Your task to perform on an android device: What's the weather today? Image 0: 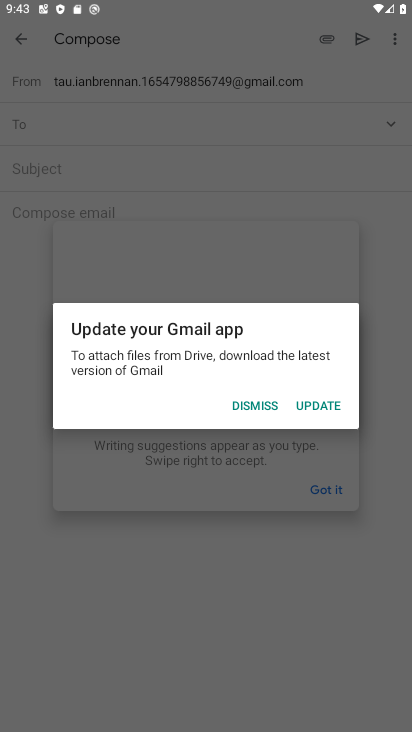
Step 0: click (253, 408)
Your task to perform on an android device: What's the weather today? Image 1: 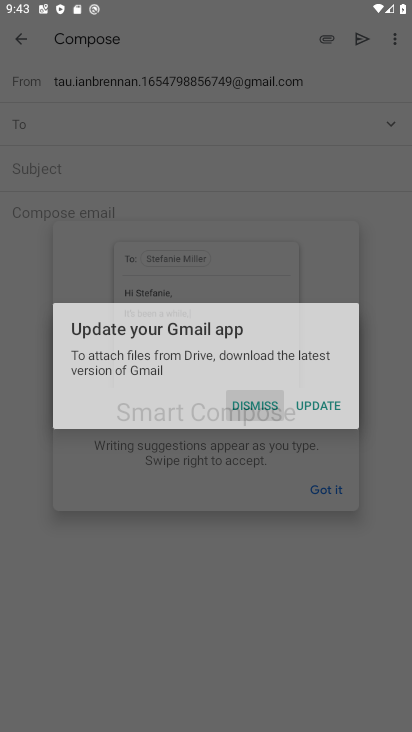
Step 1: click (263, 406)
Your task to perform on an android device: What's the weather today? Image 2: 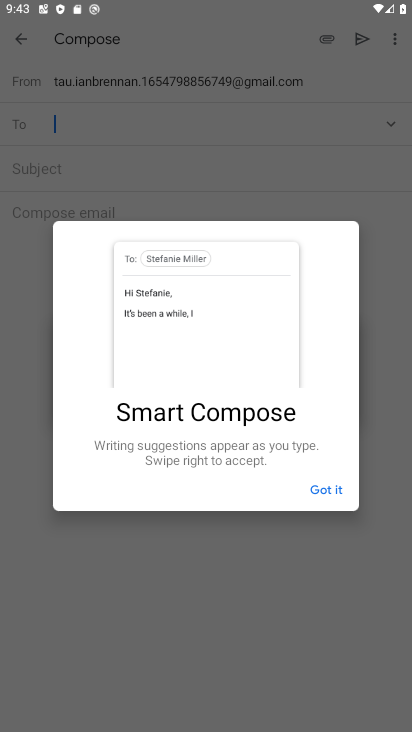
Step 2: click (263, 406)
Your task to perform on an android device: What's the weather today? Image 3: 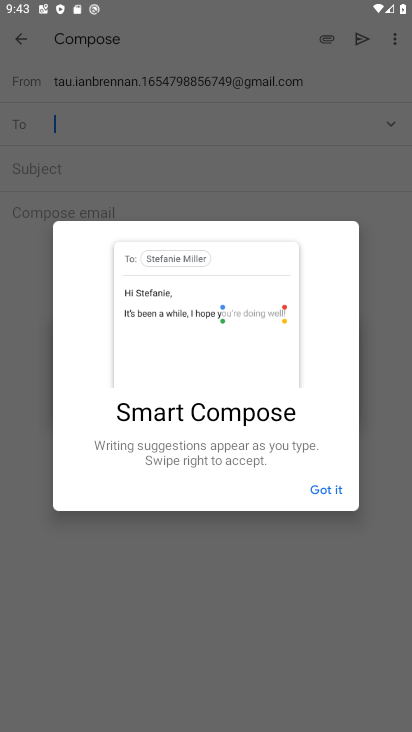
Step 3: click (328, 491)
Your task to perform on an android device: What's the weather today? Image 4: 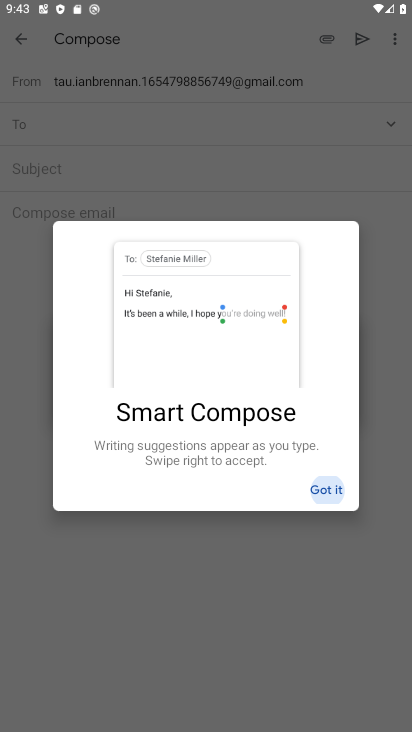
Step 4: click (327, 491)
Your task to perform on an android device: What's the weather today? Image 5: 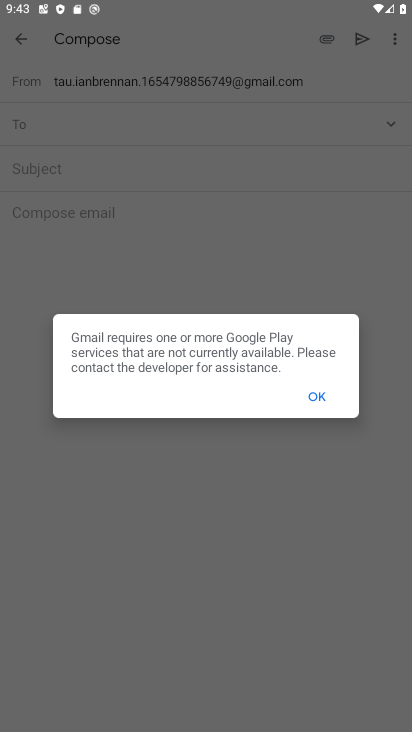
Step 5: click (327, 491)
Your task to perform on an android device: What's the weather today? Image 6: 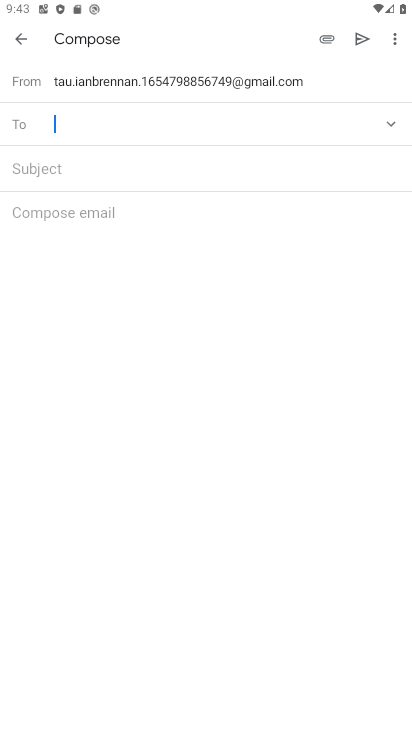
Step 6: click (331, 483)
Your task to perform on an android device: What's the weather today? Image 7: 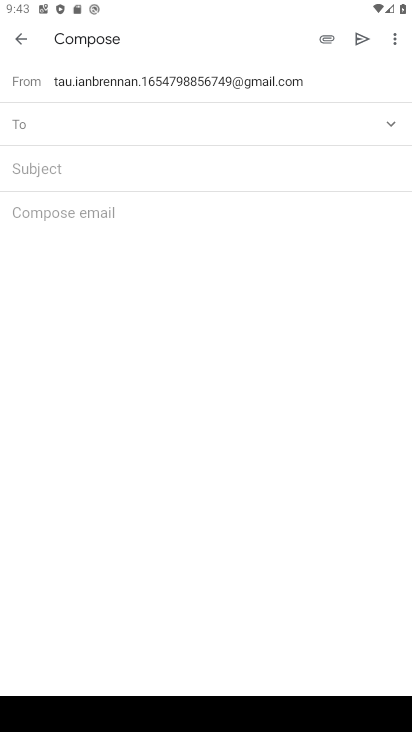
Step 7: click (17, 38)
Your task to perform on an android device: What's the weather today? Image 8: 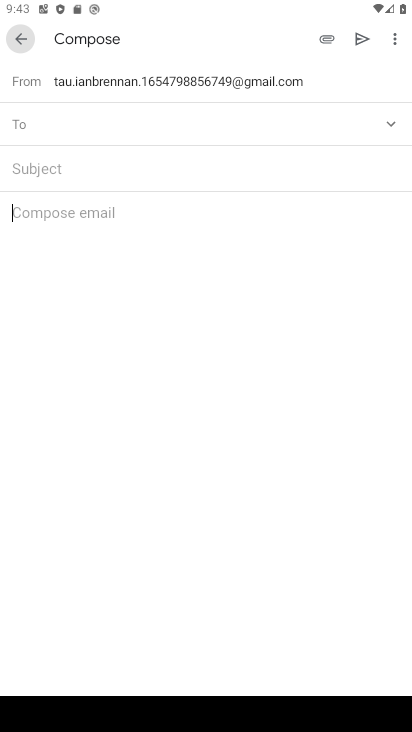
Step 8: click (16, 37)
Your task to perform on an android device: What's the weather today? Image 9: 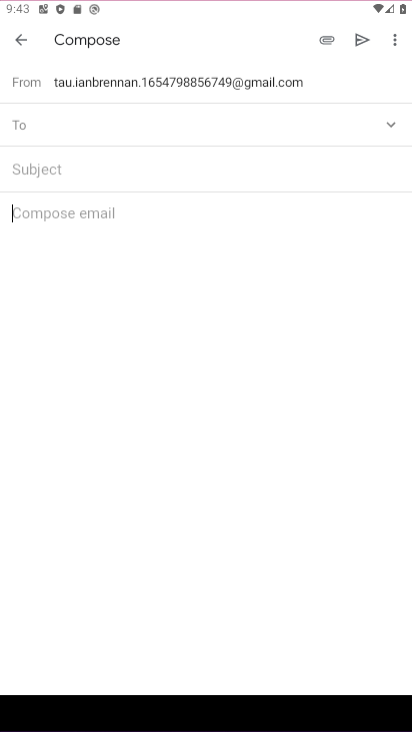
Step 9: click (16, 37)
Your task to perform on an android device: What's the weather today? Image 10: 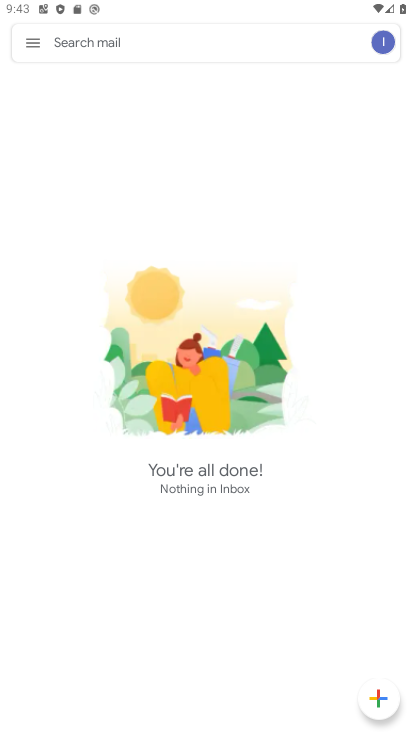
Step 10: press back button
Your task to perform on an android device: What's the weather today? Image 11: 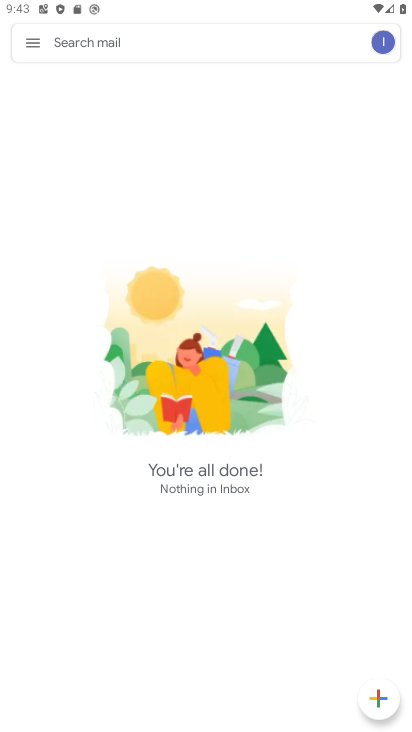
Step 11: press home button
Your task to perform on an android device: What's the weather today? Image 12: 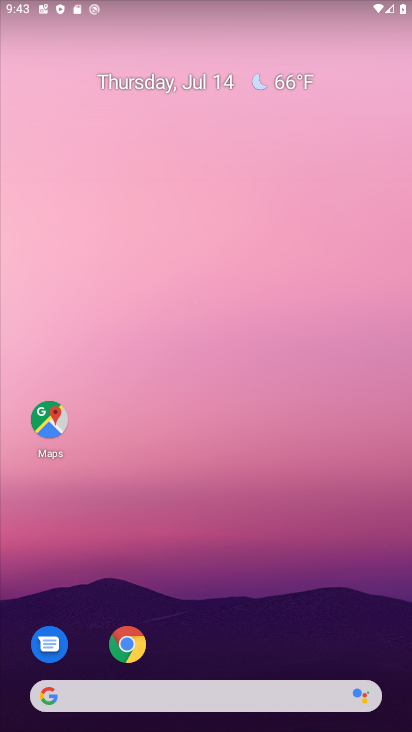
Step 12: drag from (274, 542) to (230, 76)
Your task to perform on an android device: What's the weather today? Image 13: 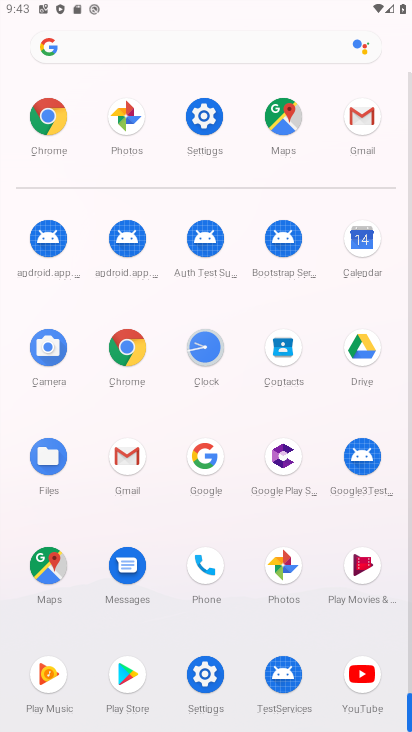
Step 13: click (43, 119)
Your task to perform on an android device: What's the weather today? Image 14: 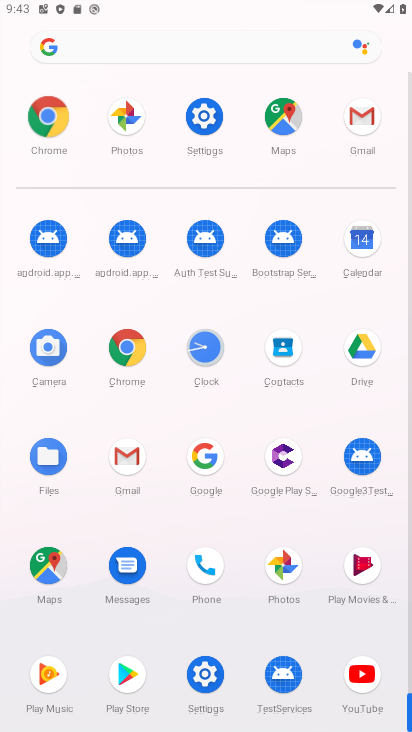
Step 14: click (44, 110)
Your task to perform on an android device: What's the weather today? Image 15: 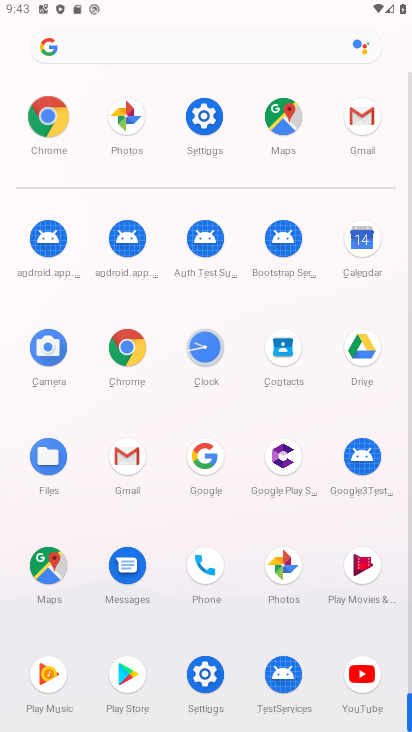
Step 15: click (46, 117)
Your task to perform on an android device: What's the weather today? Image 16: 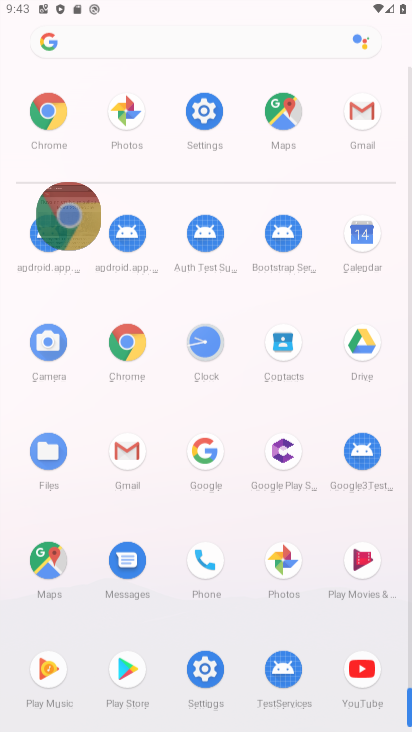
Step 16: click (51, 117)
Your task to perform on an android device: What's the weather today? Image 17: 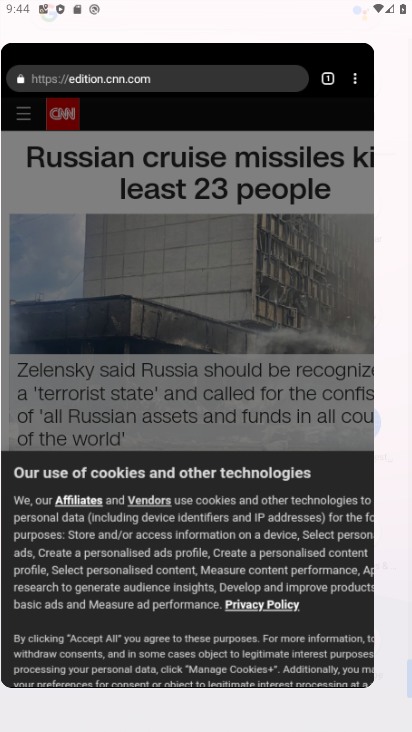
Step 17: click (52, 118)
Your task to perform on an android device: What's the weather today? Image 18: 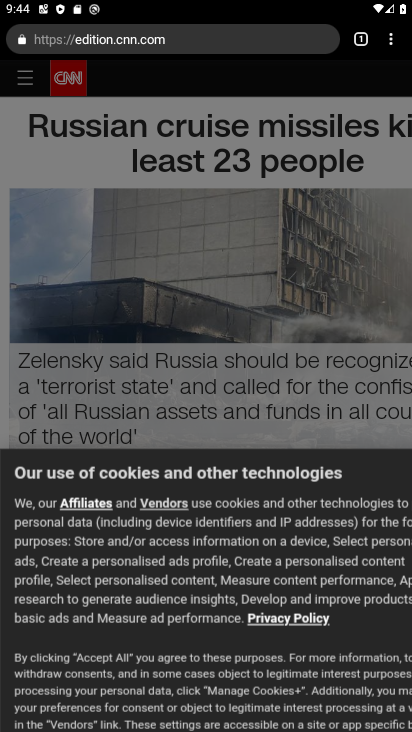
Step 18: drag from (390, 46) to (252, 78)
Your task to perform on an android device: What's the weather today? Image 19: 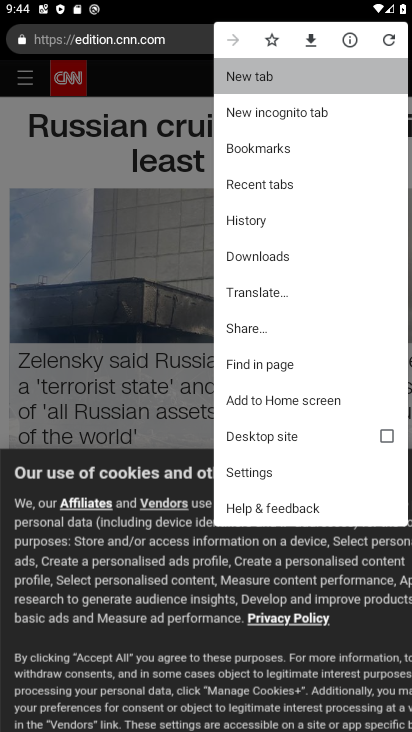
Step 19: click (245, 75)
Your task to perform on an android device: What's the weather today? Image 20: 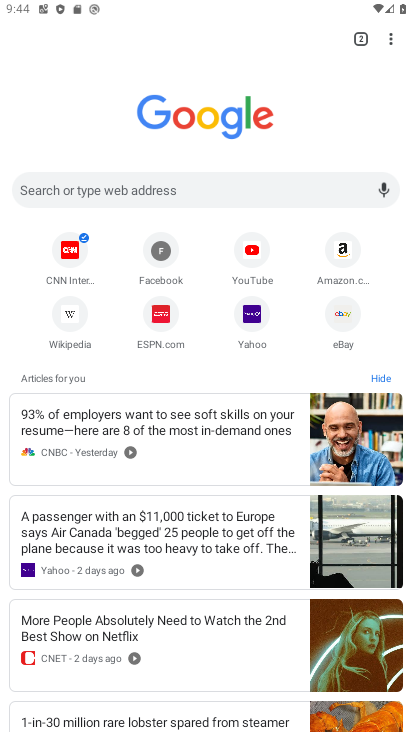
Step 20: click (72, 187)
Your task to perform on an android device: What's the weather today? Image 21: 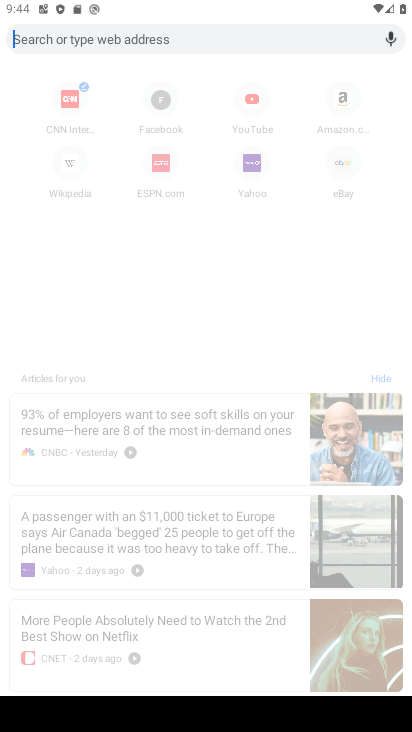
Step 21: type "weather today?"
Your task to perform on an android device: What's the weather today? Image 22: 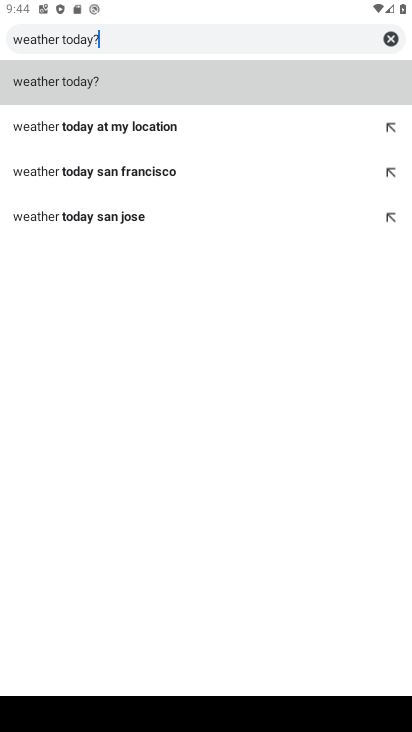
Step 22: click (93, 81)
Your task to perform on an android device: What's the weather today? Image 23: 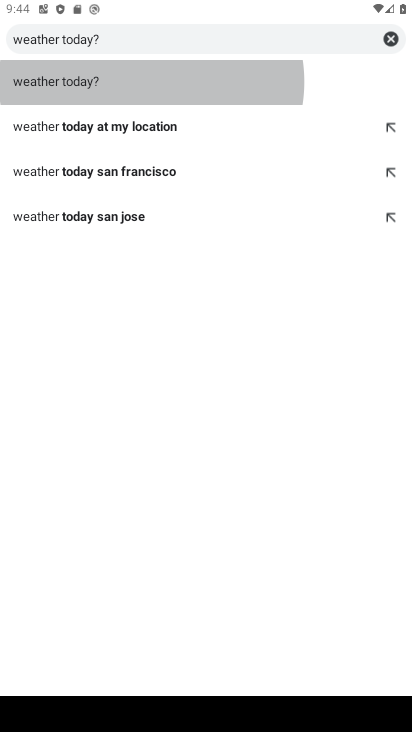
Step 23: click (93, 82)
Your task to perform on an android device: What's the weather today? Image 24: 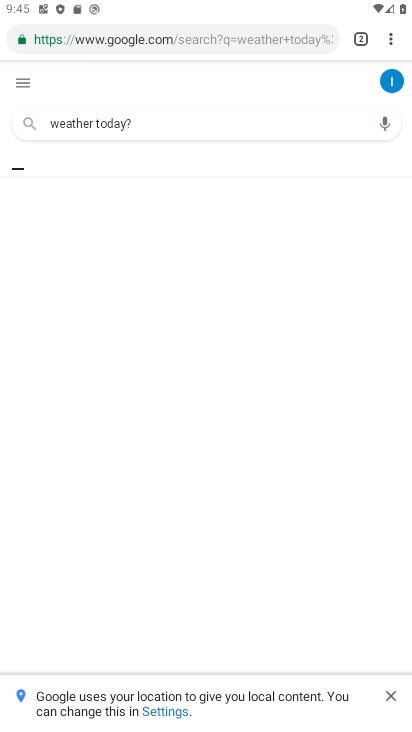
Step 24: task complete